Your task to perform on an android device: open the mobile data screen to see how much data has been used Image 0: 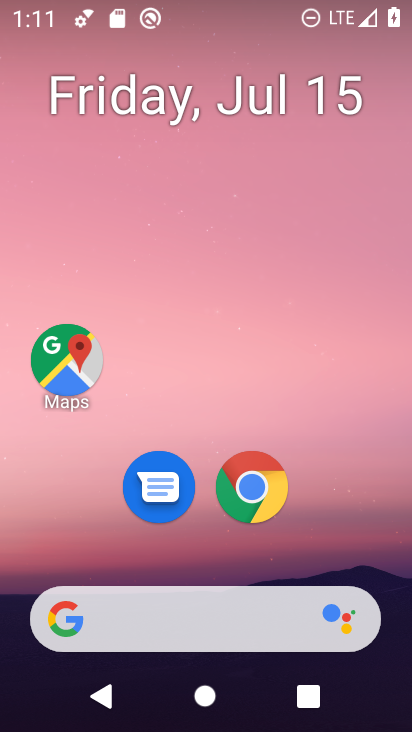
Step 0: drag from (277, 570) to (260, 188)
Your task to perform on an android device: open the mobile data screen to see how much data has been used Image 1: 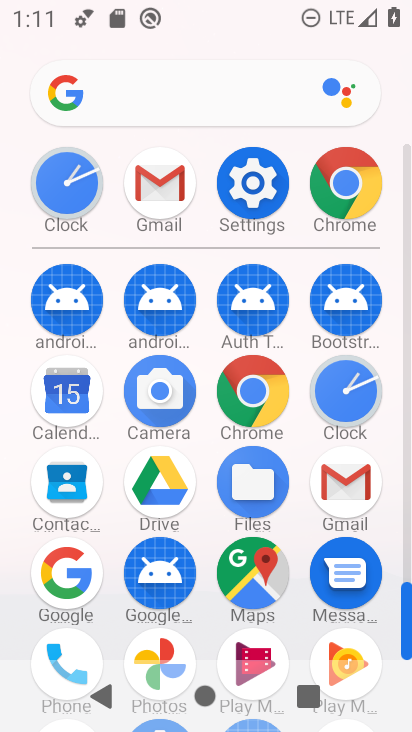
Step 1: click (247, 209)
Your task to perform on an android device: open the mobile data screen to see how much data has been used Image 2: 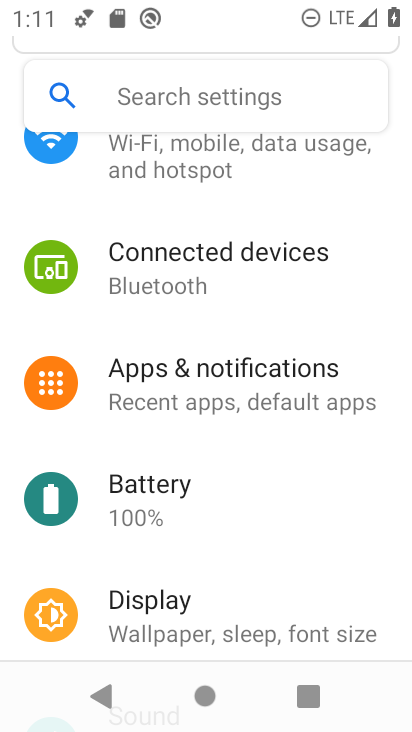
Step 2: drag from (280, 278) to (257, 584)
Your task to perform on an android device: open the mobile data screen to see how much data has been used Image 3: 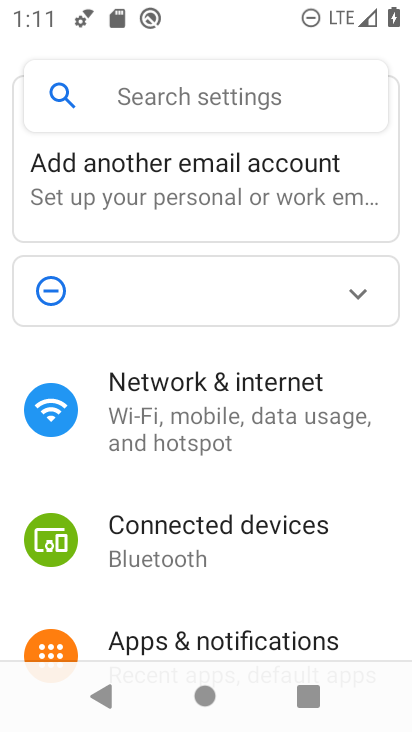
Step 3: click (265, 425)
Your task to perform on an android device: open the mobile data screen to see how much data has been used Image 4: 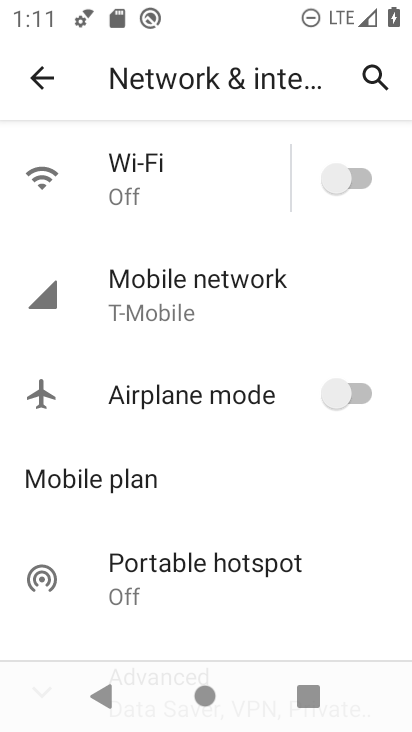
Step 4: click (238, 296)
Your task to perform on an android device: open the mobile data screen to see how much data has been used Image 5: 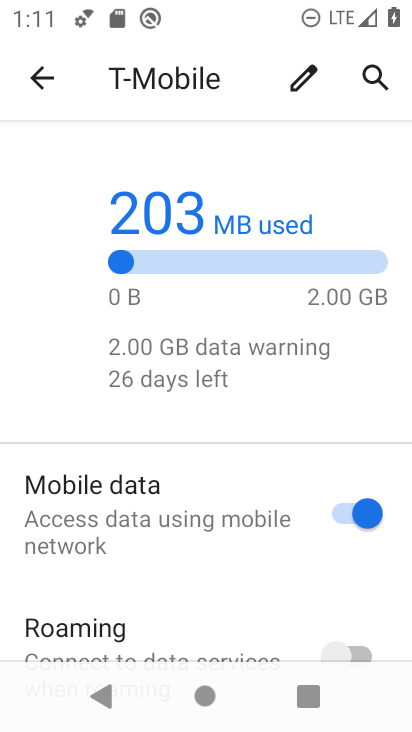
Step 5: drag from (237, 608) to (253, 338)
Your task to perform on an android device: open the mobile data screen to see how much data has been used Image 6: 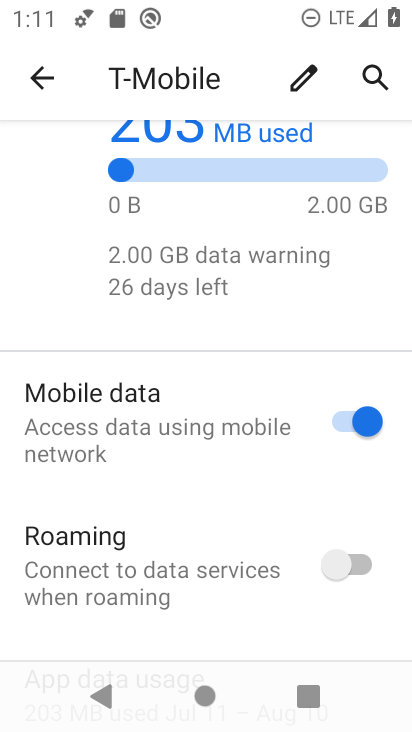
Step 6: drag from (235, 590) to (281, 99)
Your task to perform on an android device: open the mobile data screen to see how much data has been used Image 7: 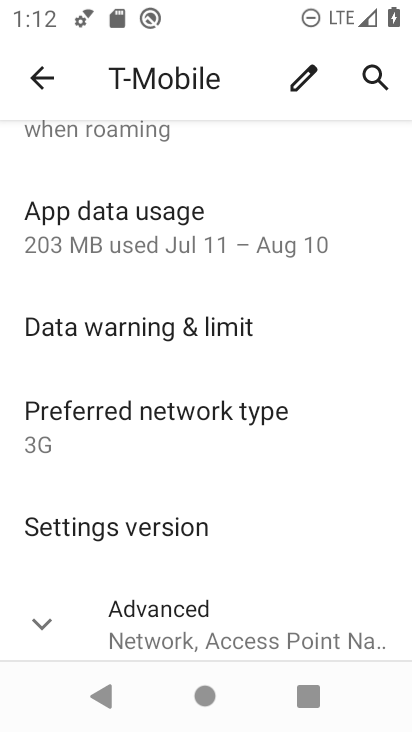
Step 7: click (236, 238)
Your task to perform on an android device: open the mobile data screen to see how much data has been used Image 8: 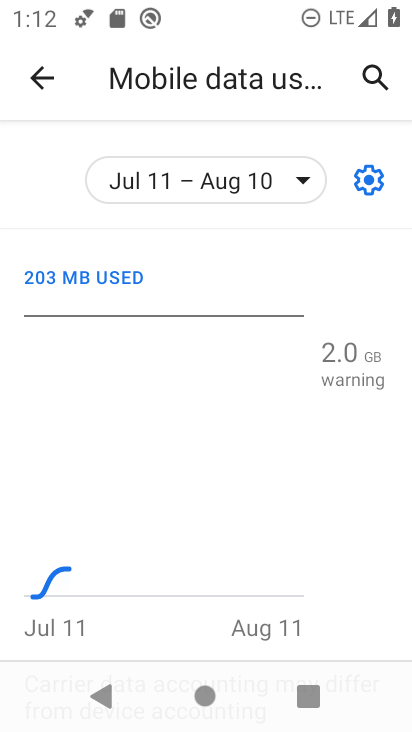
Step 8: task complete